Your task to perform on an android device: Go to calendar. Show me events next week Image 0: 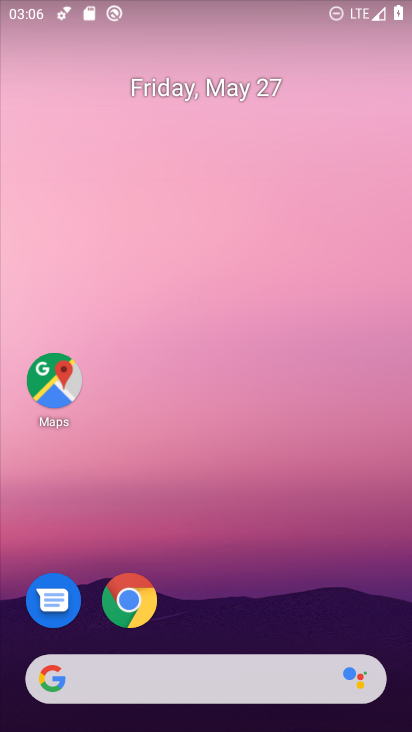
Step 0: drag from (207, 728) to (209, 8)
Your task to perform on an android device: Go to calendar. Show me events next week Image 1: 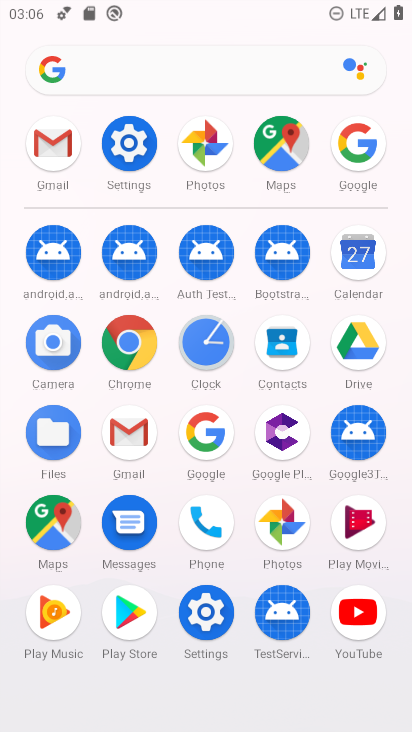
Step 1: click (355, 251)
Your task to perform on an android device: Go to calendar. Show me events next week Image 2: 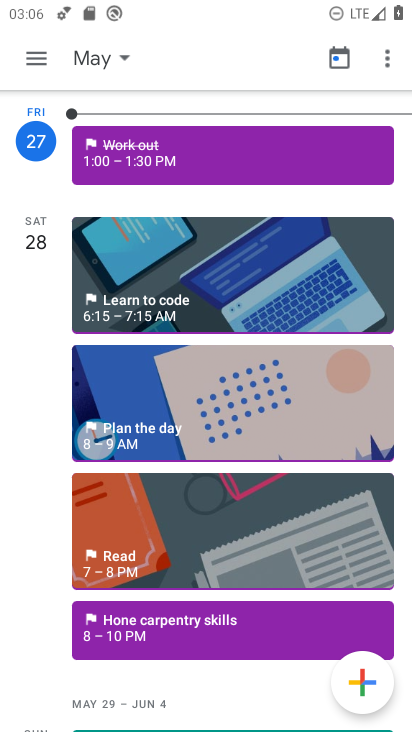
Step 2: click (117, 53)
Your task to perform on an android device: Go to calendar. Show me events next week Image 3: 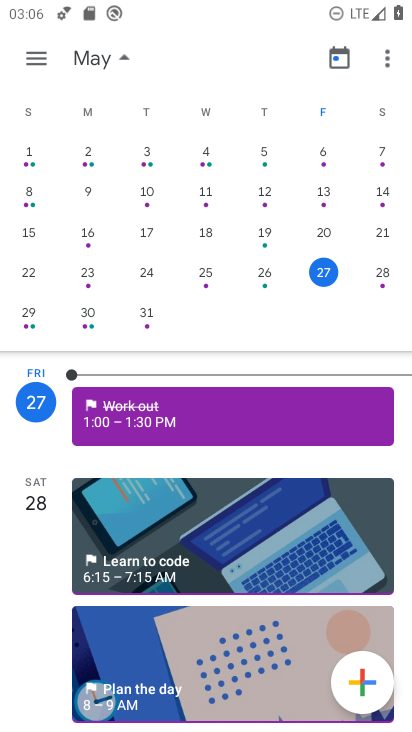
Step 3: click (92, 315)
Your task to perform on an android device: Go to calendar. Show me events next week Image 4: 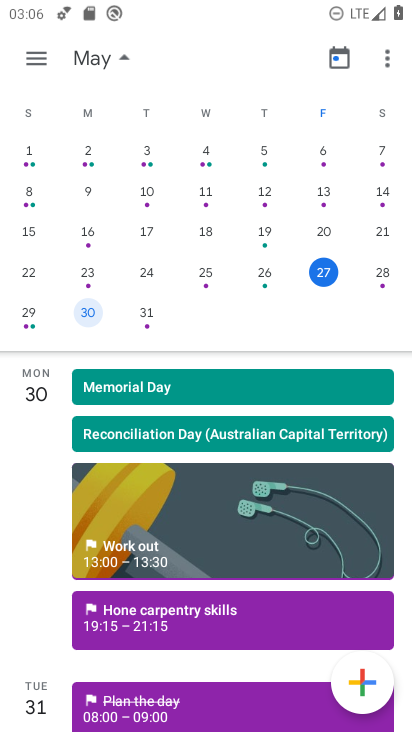
Step 4: click (33, 53)
Your task to perform on an android device: Go to calendar. Show me events next week Image 5: 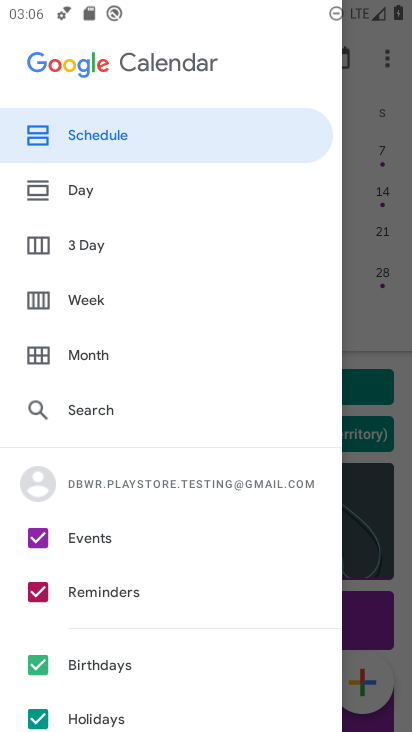
Step 5: click (35, 714)
Your task to perform on an android device: Go to calendar. Show me events next week Image 6: 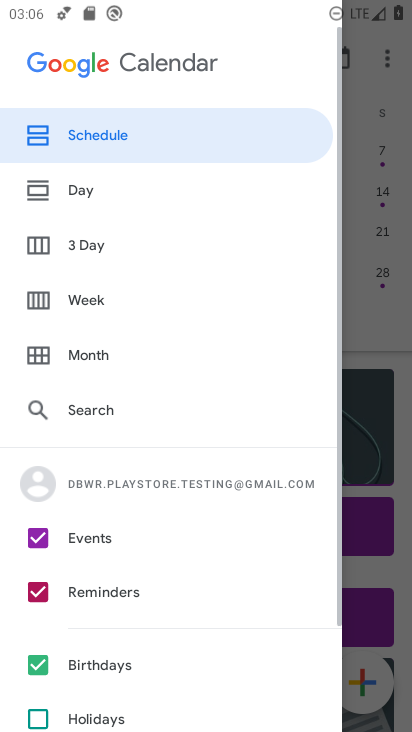
Step 6: click (31, 665)
Your task to perform on an android device: Go to calendar. Show me events next week Image 7: 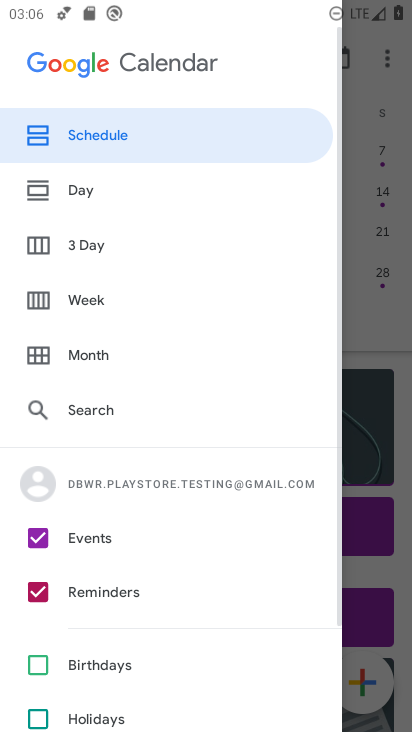
Step 7: click (39, 589)
Your task to perform on an android device: Go to calendar. Show me events next week Image 8: 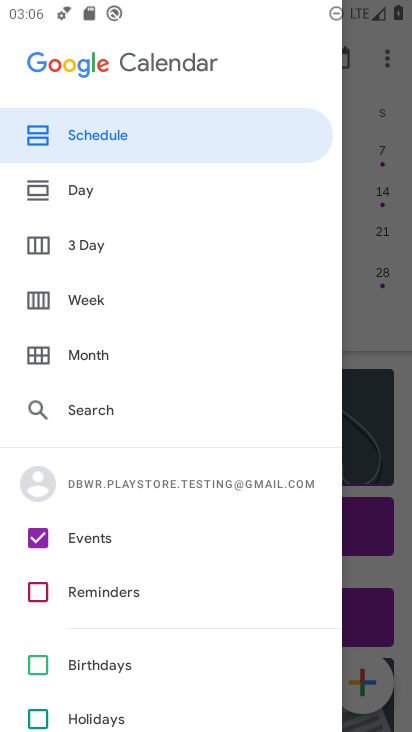
Step 8: click (80, 297)
Your task to perform on an android device: Go to calendar. Show me events next week Image 9: 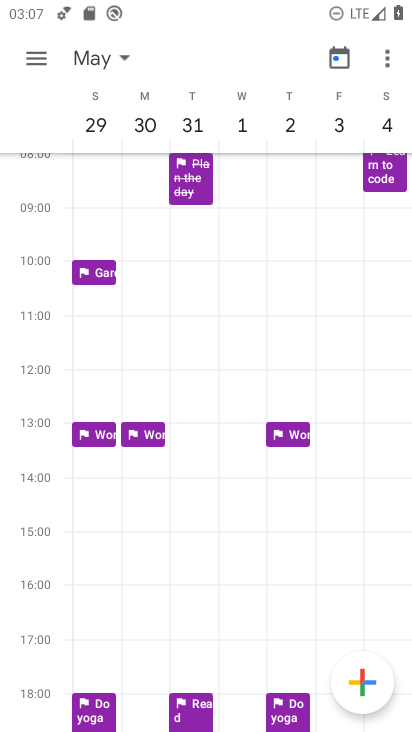
Step 9: task complete